Your task to perform on an android device: Open Reddit.com Image 0: 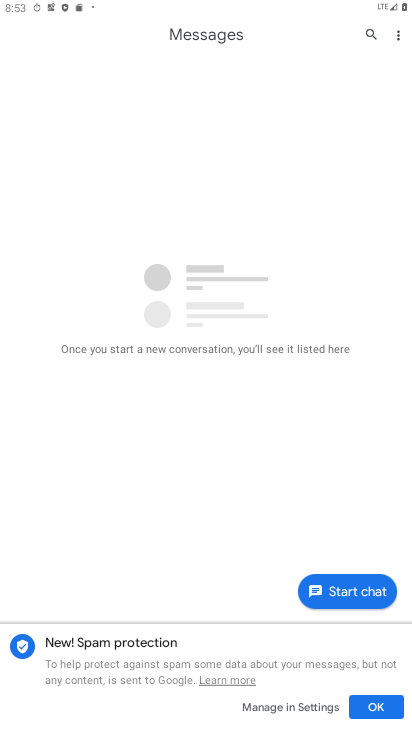
Step 0: press home button
Your task to perform on an android device: Open Reddit.com Image 1: 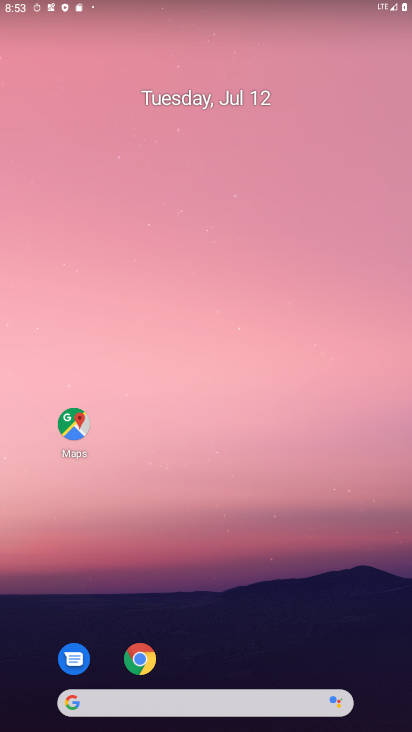
Step 1: drag from (344, 548) to (115, 6)
Your task to perform on an android device: Open Reddit.com Image 2: 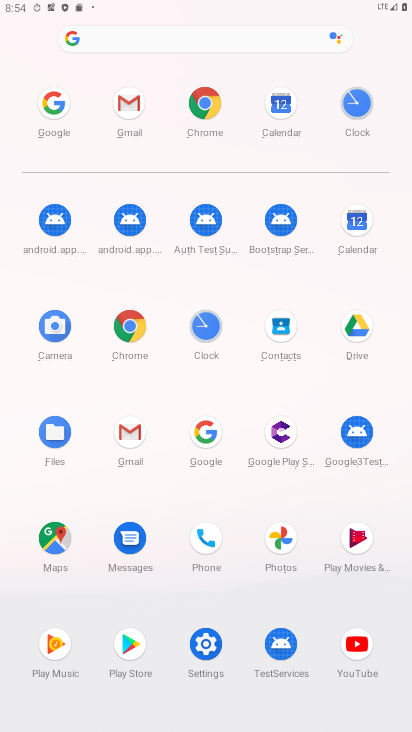
Step 2: click (200, 424)
Your task to perform on an android device: Open Reddit.com Image 3: 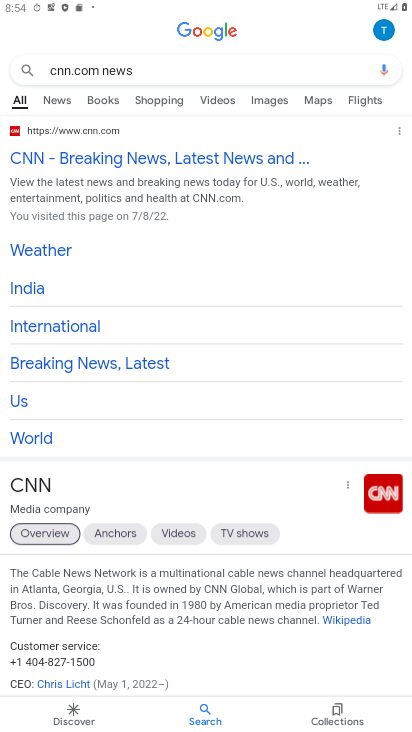
Step 3: press back button
Your task to perform on an android device: Open Reddit.com Image 4: 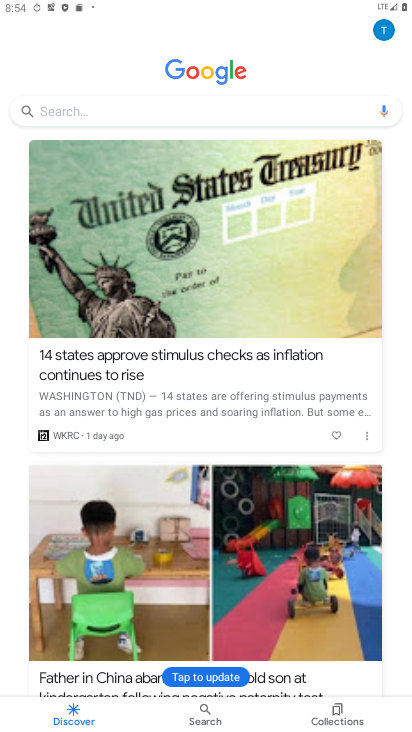
Step 4: click (84, 108)
Your task to perform on an android device: Open Reddit.com Image 5: 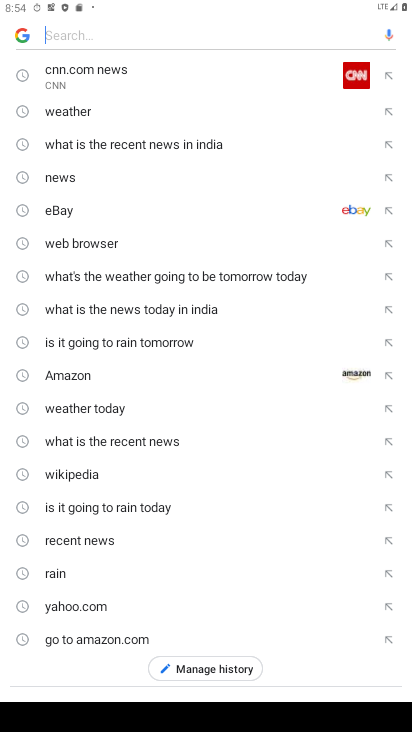
Step 5: type "Reddit.com"
Your task to perform on an android device: Open Reddit.com Image 6: 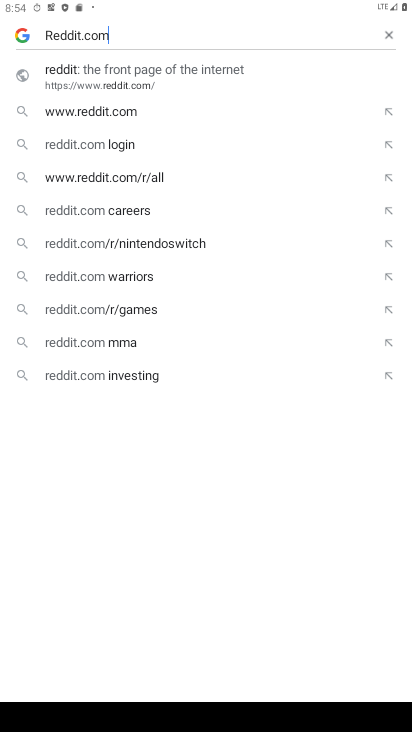
Step 6: click (122, 86)
Your task to perform on an android device: Open Reddit.com Image 7: 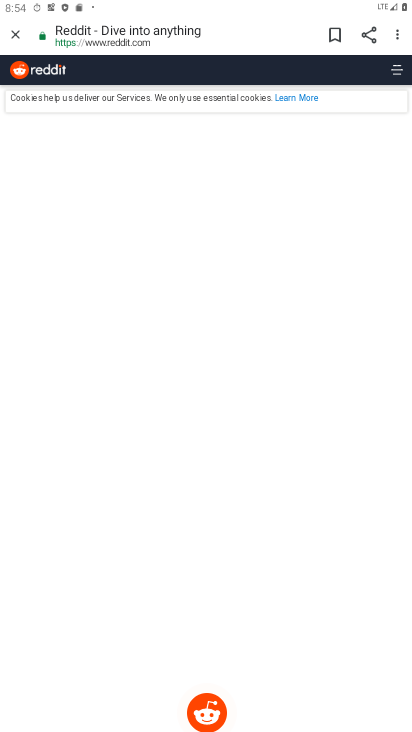
Step 7: task complete